Your task to perform on an android device: Go to CNN.com Image 0: 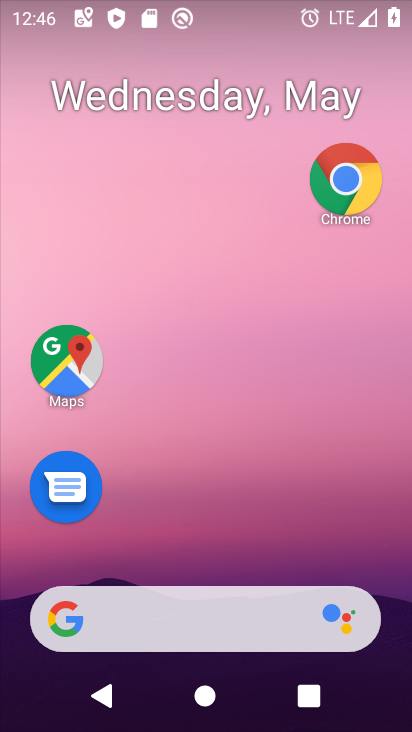
Step 0: click (188, 614)
Your task to perform on an android device: Go to CNN.com Image 1: 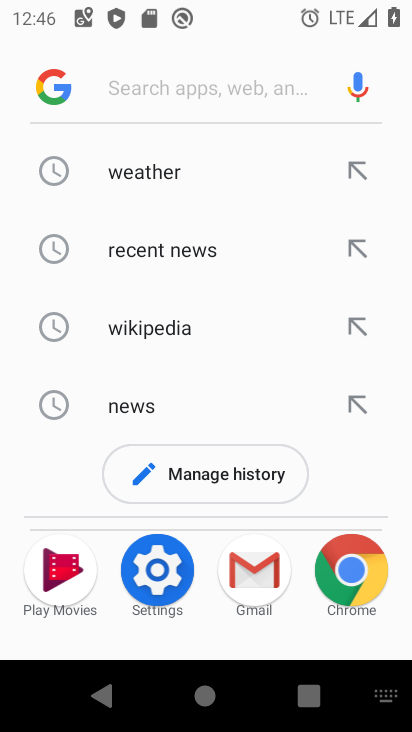
Step 1: type "cnn.com"
Your task to perform on an android device: Go to CNN.com Image 2: 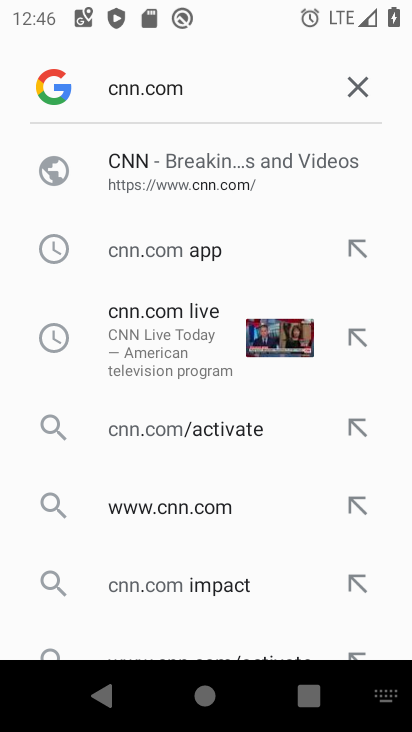
Step 2: click (179, 187)
Your task to perform on an android device: Go to CNN.com Image 3: 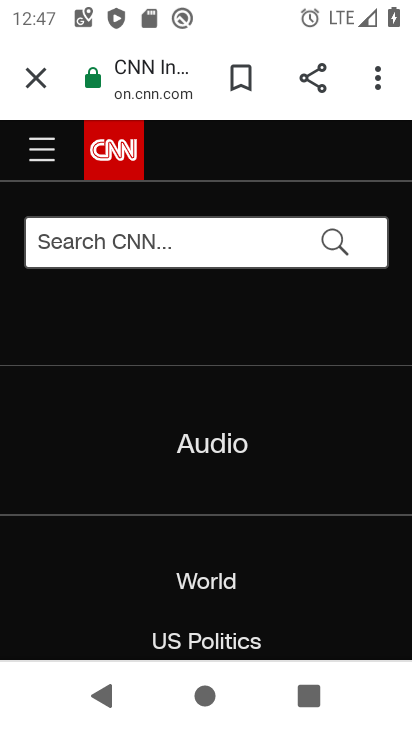
Step 3: task complete